Your task to perform on an android device: Go to Reddit.com Image 0: 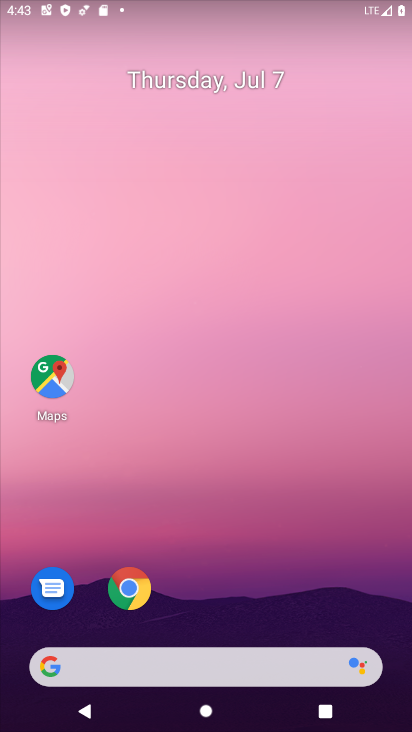
Step 0: drag from (328, 597) to (358, 1)
Your task to perform on an android device: Go to Reddit.com Image 1: 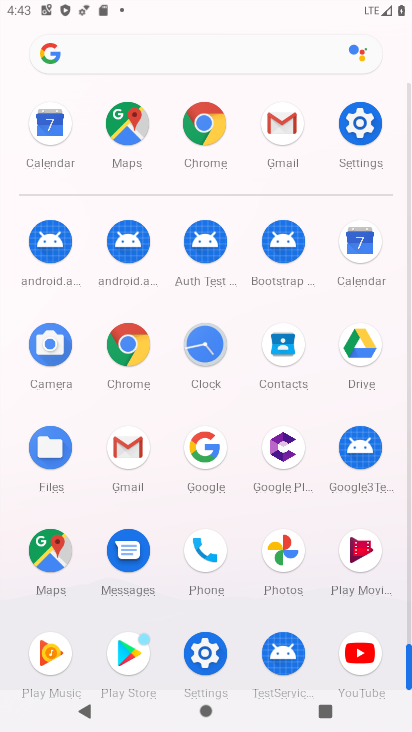
Step 1: click (217, 126)
Your task to perform on an android device: Go to Reddit.com Image 2: 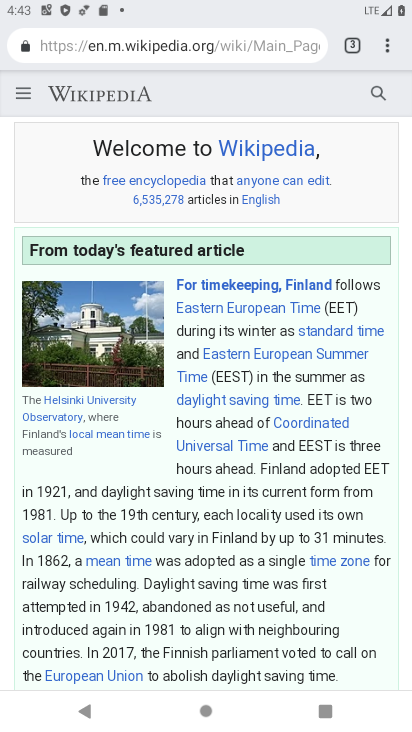
Step 2: click (224, 47)
Your task to perform on an android device: Go to Reddit.com Image 3: 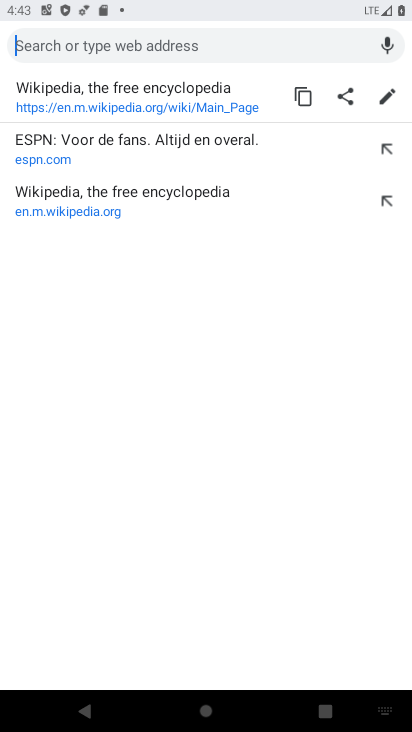
Step 3: type "reddit.com"
Your task to perform on an android device: Go to Reddit.com Image 4: 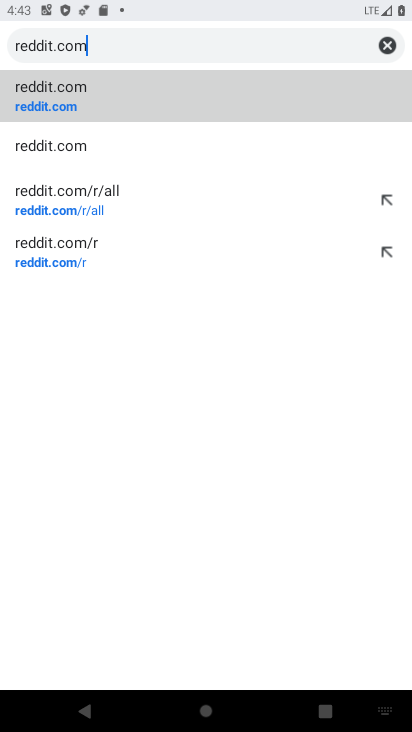
Step 4: click (90, 113)
Your task to perform on an android device: Go to Reddit.com Image 5: 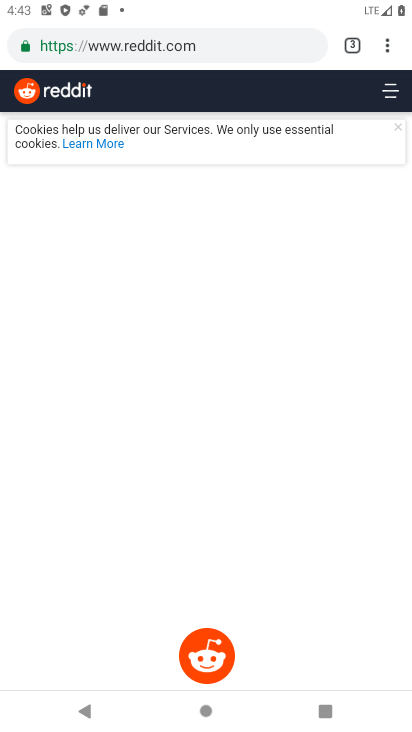
Step 5: task complete